Your task to perform on an android device: open a new tab in the chrome app Image 0: 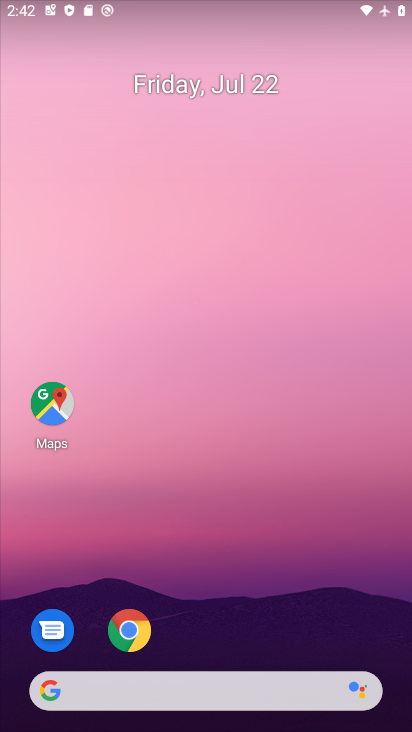
Step 0: drag from (256, 665) to (249, 53)
Your task to perform on an android device: open a new tab in the chrome app Image 1: 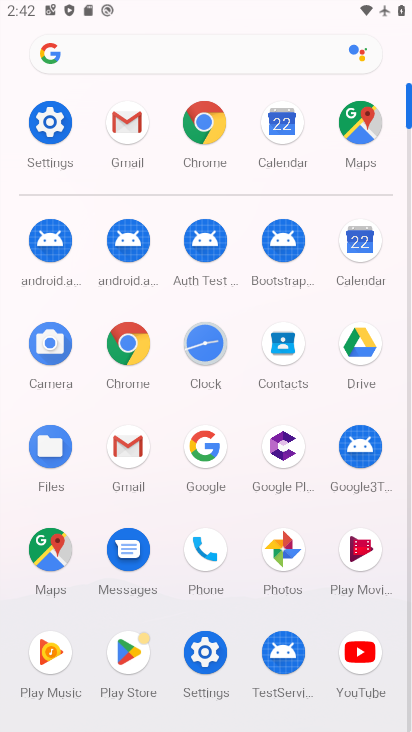
Step 1: click (130, 382)
Your task to perform on an android device: open a new tab in the chrome app Image 2: 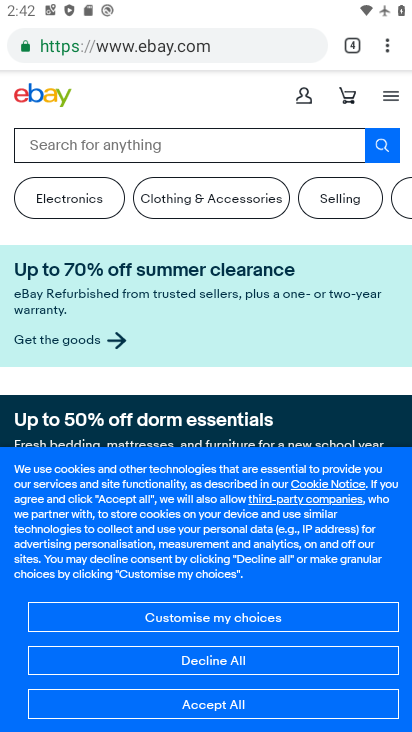
Step 2: click (355, 39)
Your task to perform on an android device: open a new tab in the chrome app Image 3: 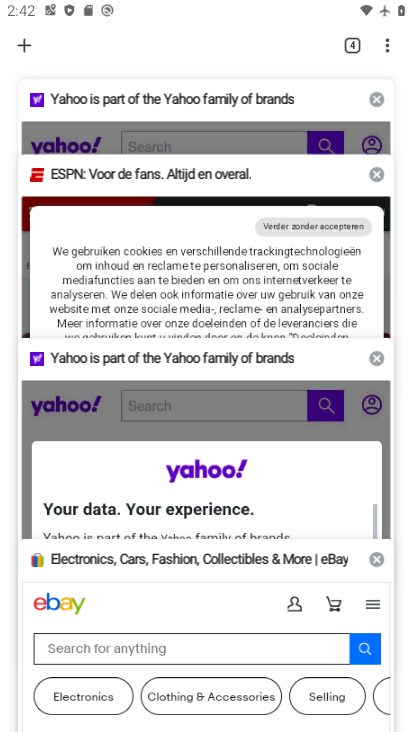
Step 3: click (32, 38)
Your task to perform on an android device: open a new tab in the chrome app Image 4: 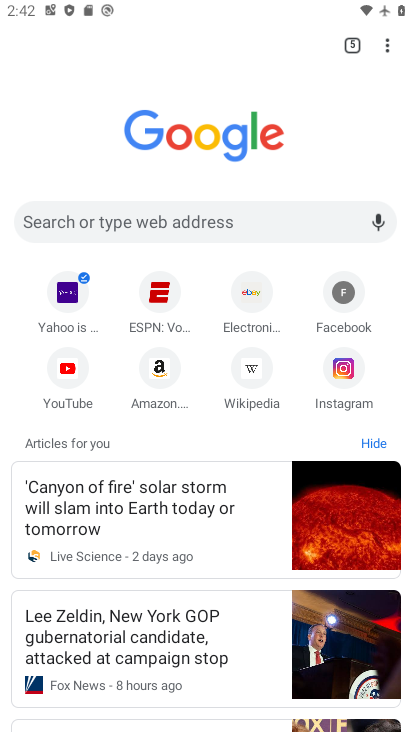
Step 4: task complete